Your task to perform on an android device: open chrome and create a bookmark for the current page Image 0: 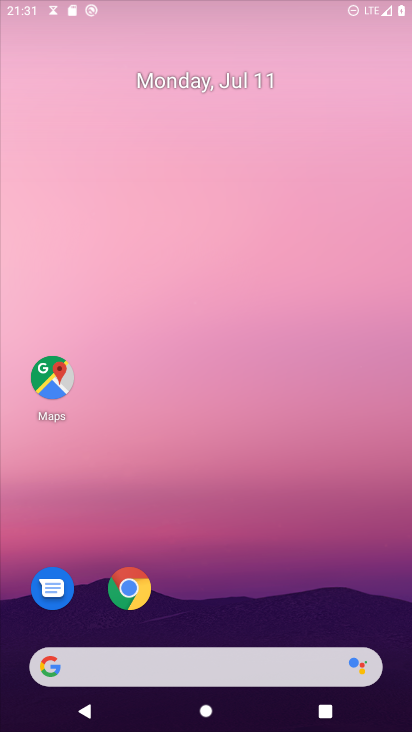
Step 0: press home button
Your task to perform on an android device: open chrome and create a bookmark for the current page Image 1: 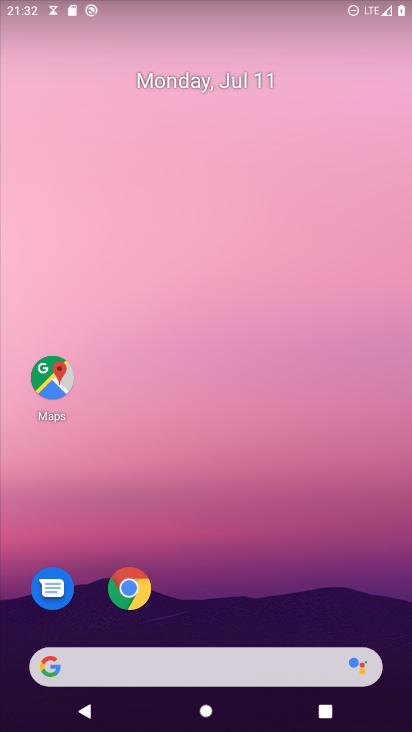
Step 1: drag from (222, 630) to (211, 128)
Your task to perform on an android device: open chrome and create a bookmark for the current page Image 2: 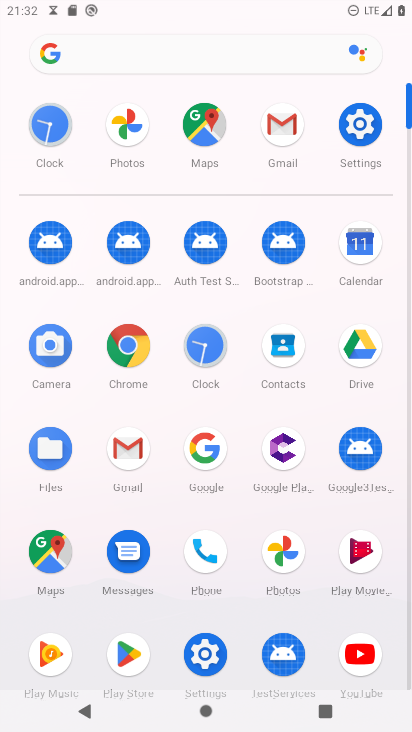
Step 2: click (133, 350)
Your task to perform on an android device: open chrome and create a bookmark for the current page Image 3: 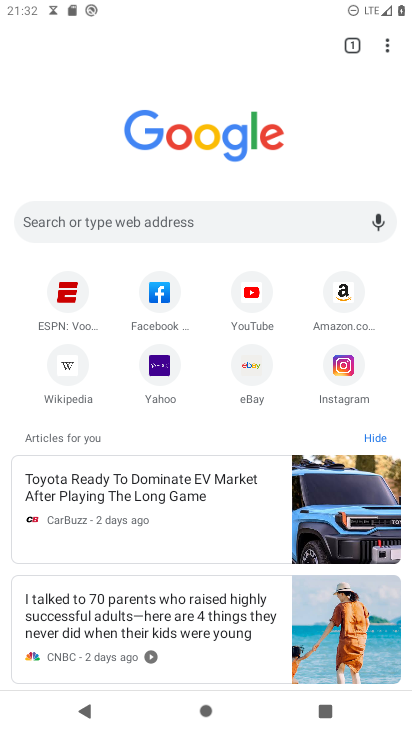
Step 3: click (390, 48)
Your task to perform on an android device: open chrome and create a bookmark for the current page Image 4: 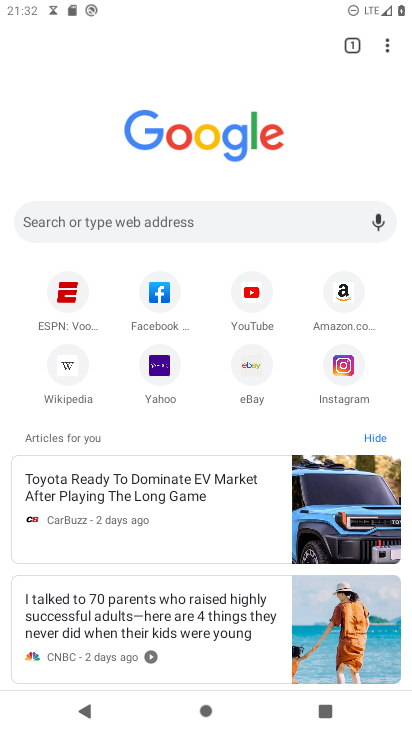
Step 4: task complete